Your task to perform on an android device: turn on bluetooth scan Image 0: 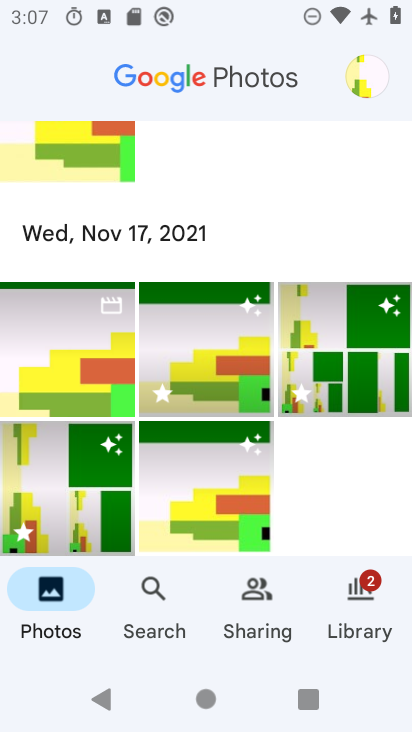
Step 0: press home button
Your task to perform on an android device: turn on bluetooth scan Image 1: 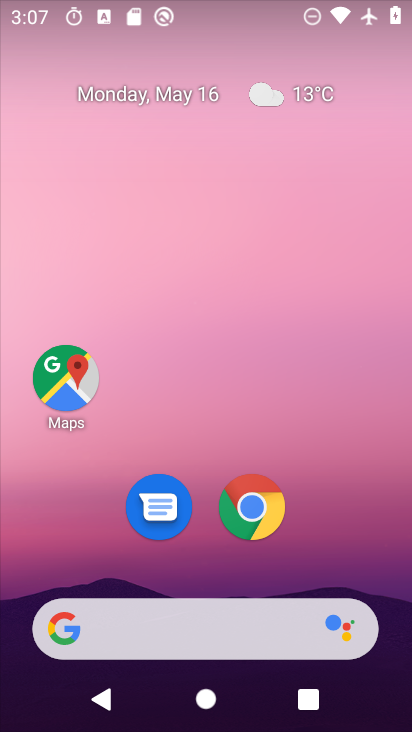
Step 1: drag from (305, 583) to (343, 239)
Your task to perform on an android device: turn on bluetooth scan Image 2: 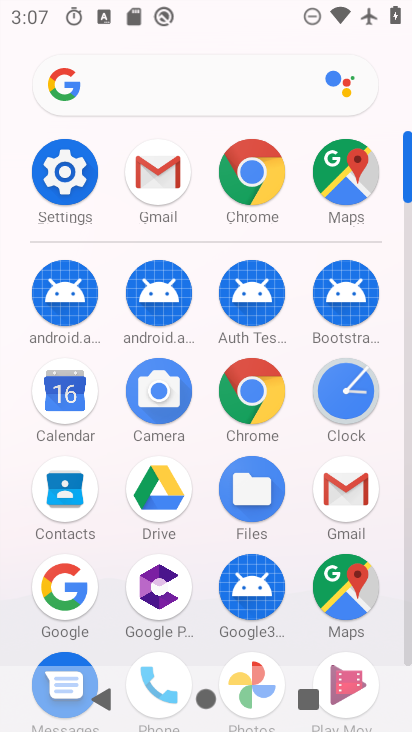
Step 2: click (85, 184)
Your task to perform on an android device: turn on bluetooth scan Image 3: 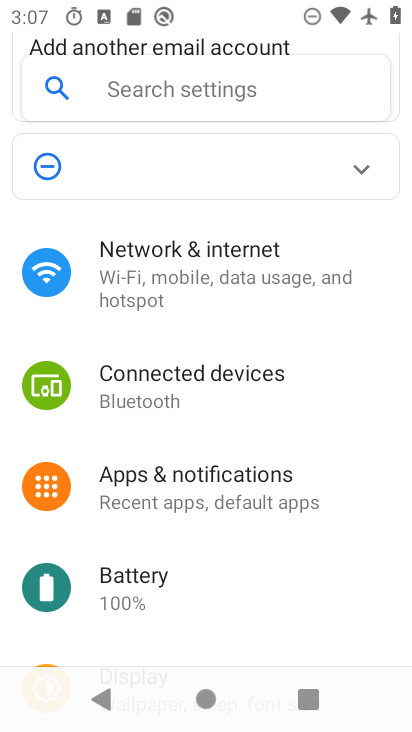
Step 3: drag from (221, 439) to (248, 199)
Your task to perform on an android device: turn on bluetooth scan Image 4: 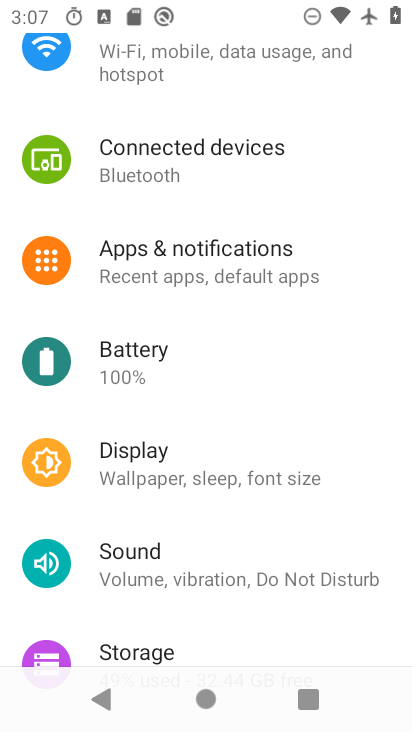
Step 4: drag from (178, 592) to (247, 265)
Your task to perform on an android device: turn on bluetooth scan Image 5: 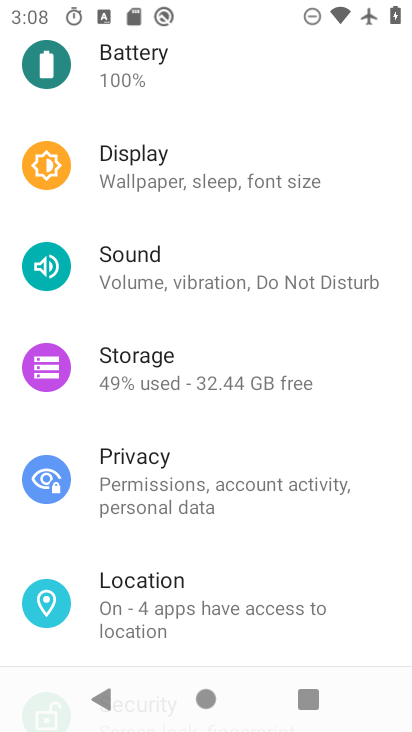
Step 5: click (209, 610)
Your task to perform on an android device: turn on bluetooth scan Image 6: 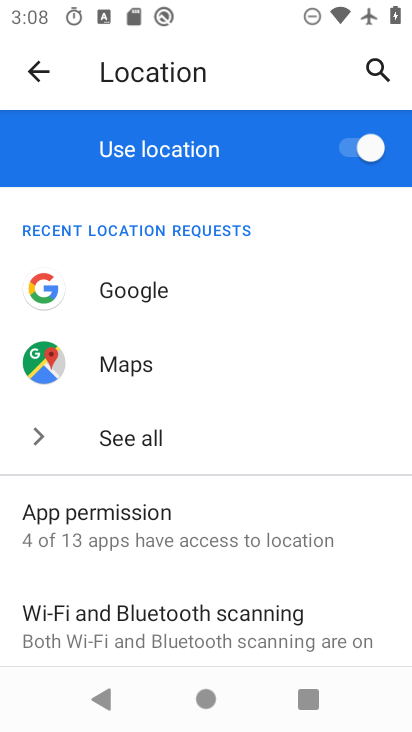
Step 6: drag from (186, 546) to (251, 321)
Your task to perform on an android device: turn on bluetooth scan Image 7: 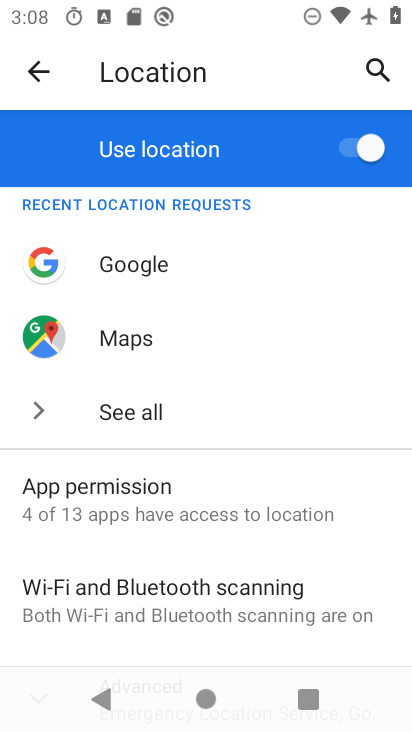
Step 7: click (228, 596)
Your task to perform on an android device: turn on bluetooth scan Image 8: 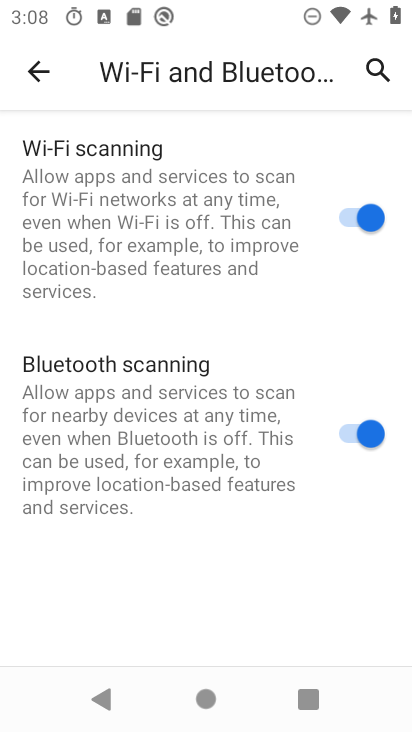
Step 8: task complete